Your task to perform on an android device: What is the news today? Image 0: 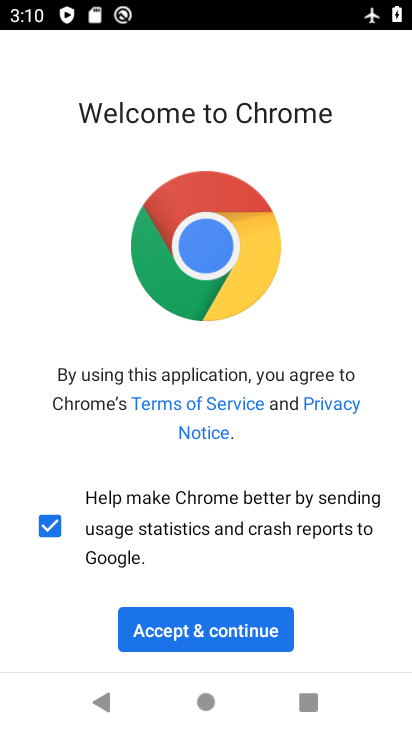
Step 0: press home button
Your task to perform on an android device: What is the news today? Image 1: 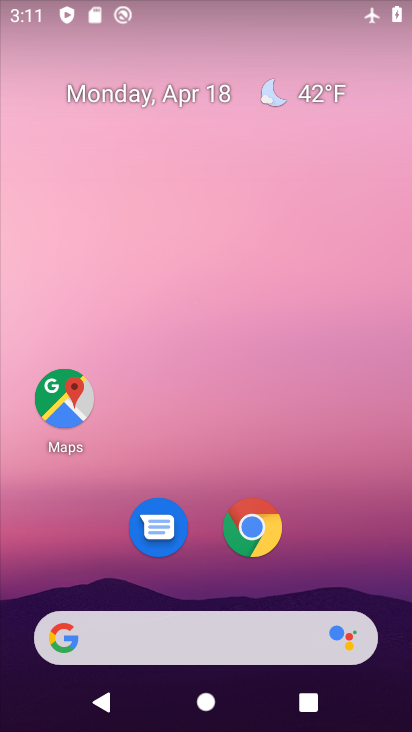
Step 1: click (264, 546)
Your task to perform on an android device: What is the news today? Image 2: 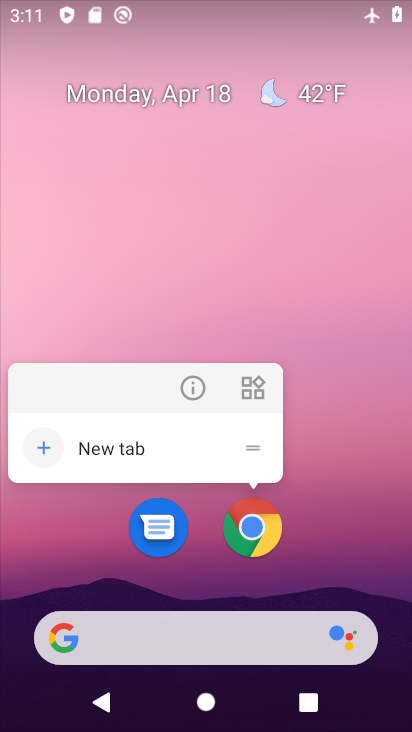
Step 2: click (260, 535)
Your task to perform on an android device: What is the news today? Image 3: 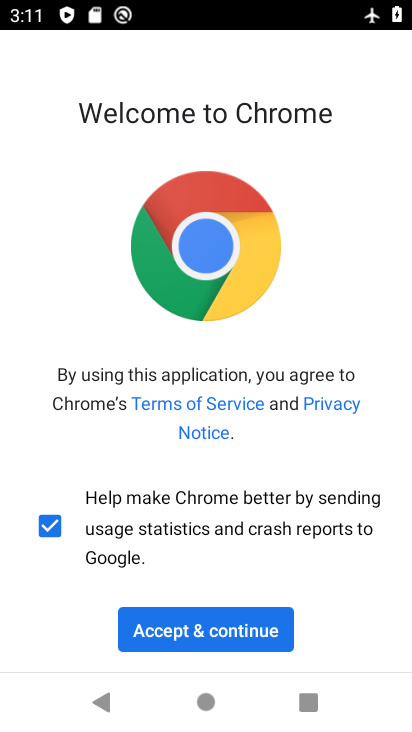
Step 3: click (188, 614)
Your task to perform on an android device: What is the news today? Image 4: 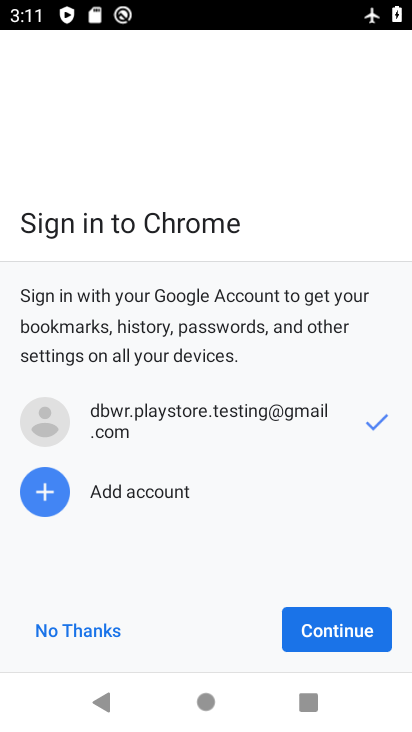
Step 4: click (337, 631)
Your task to perform on an android device: What is the news today? Image 5: 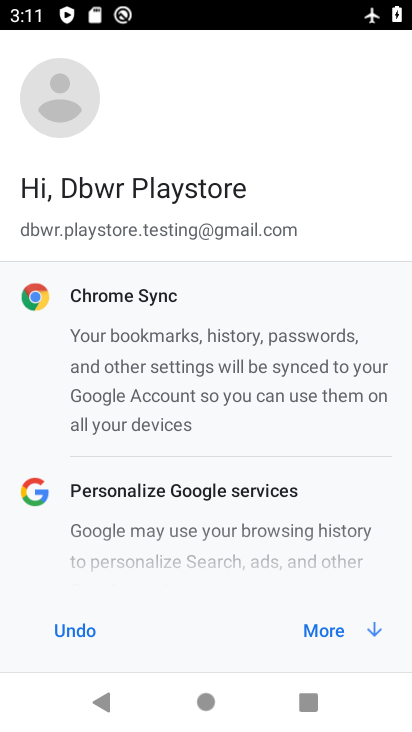
Step 5: click (337, 631)
Your task to perform on an android device: What is the news today? Image 6: 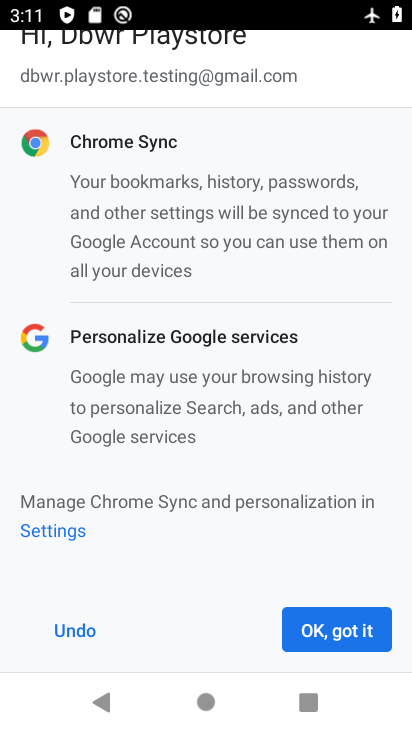
Step 6: click (337, 631)
Your task to perform on an android device: What is the news today? Image 7: 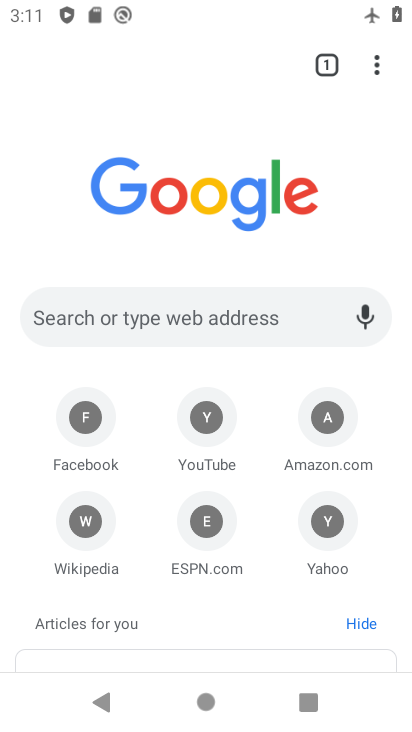
Step 7: click (174, 316)
Your task to perform on an android device: What is the news today? Image 8: 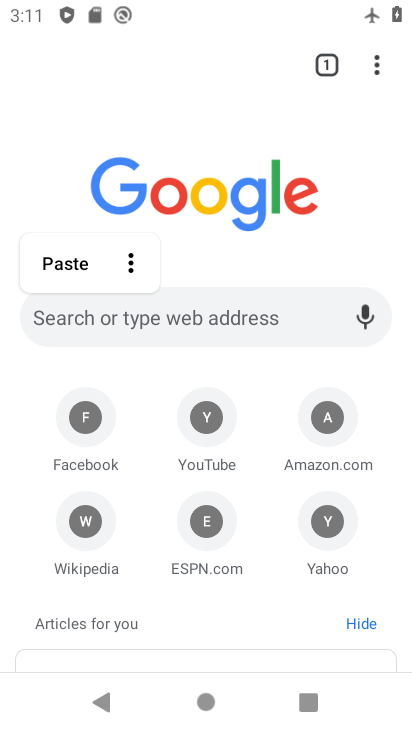
Step 8: type "what is the news today"
Your task to perform on an android device: What is the news today? Image 9: 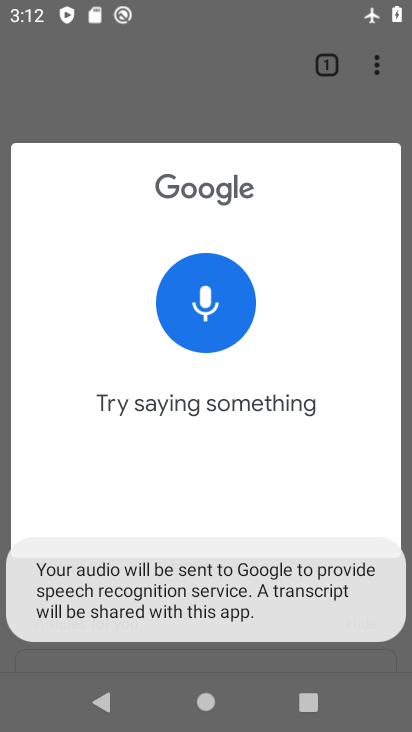
Step 9: click (157, 311)
Your task to perform on an android device: What is the news today? Image 10: 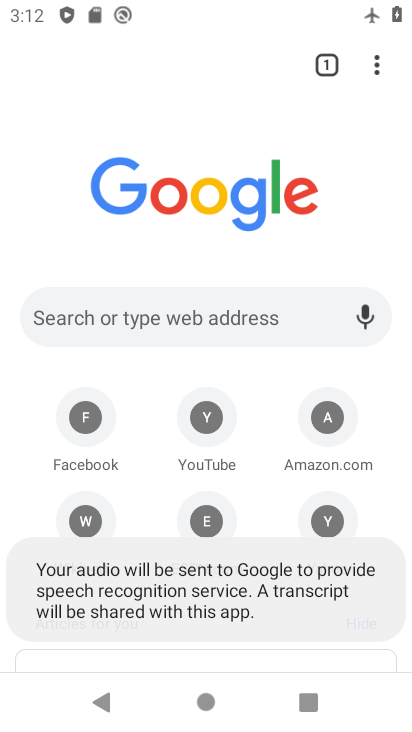
Step 10: click (183, 313)
Your task to perform on an android device: What is the news today? Image 11: 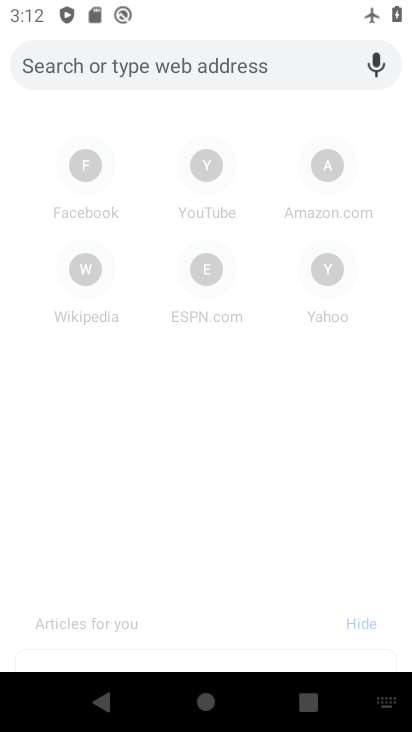
Step 11: type "what is the news today"
Your task to perform on an android device: What is the news today? Image 12: 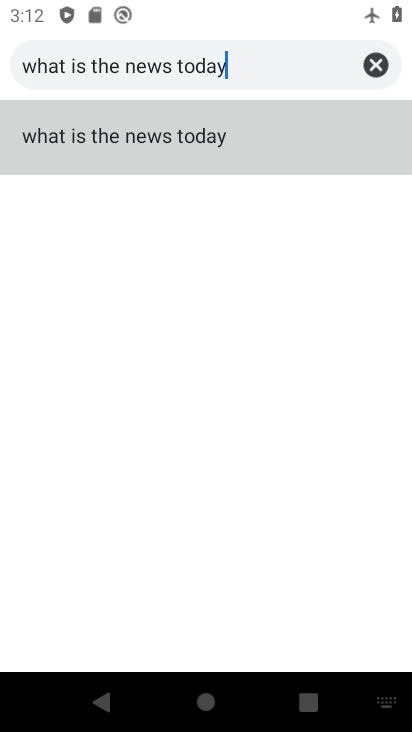
Step 12: click (149, 127)
Your task to perform on an android device: What is the news today? Image 13: 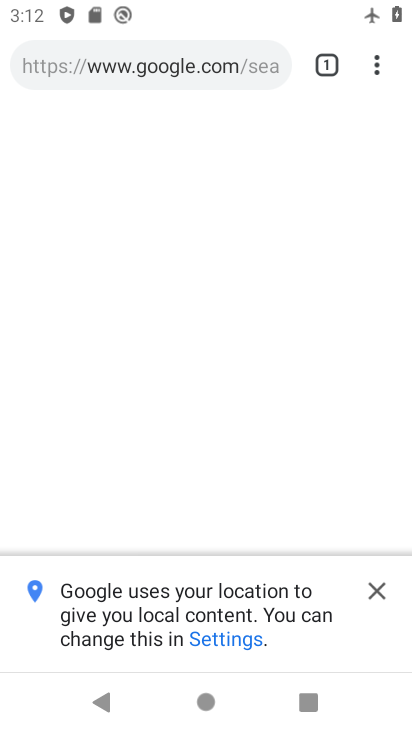
Step 13: click (376, 589)
Your task to perform on an android device: What is the news today? Image 14: 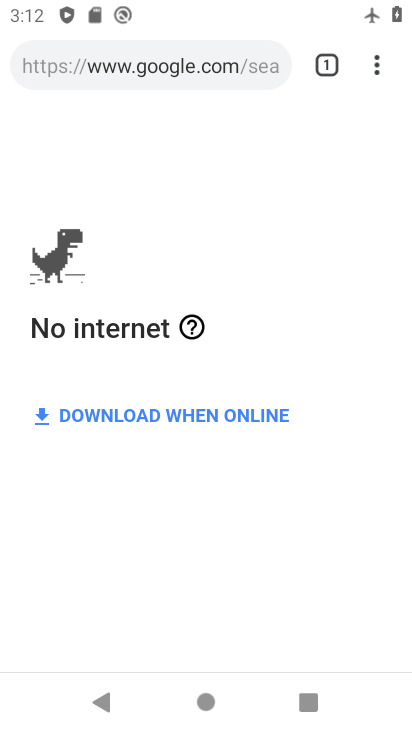
Step 14: task complete